Your task to perform on an android device: refresh tabs in the chrome app Image 0: 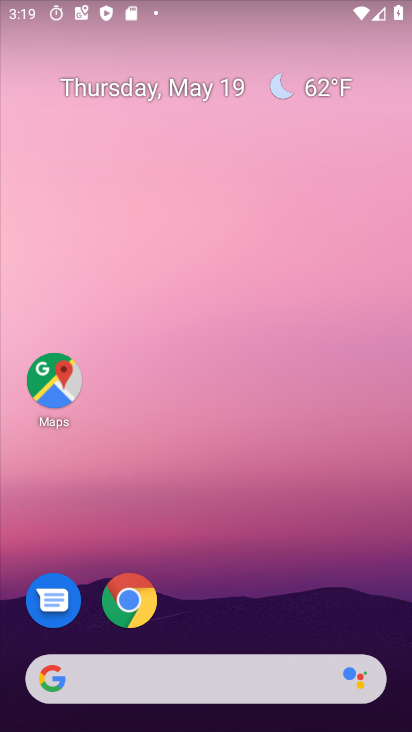
Step 0: press home button
Your task to perform on an android device: refresh tabs in the chrome app Image 1: 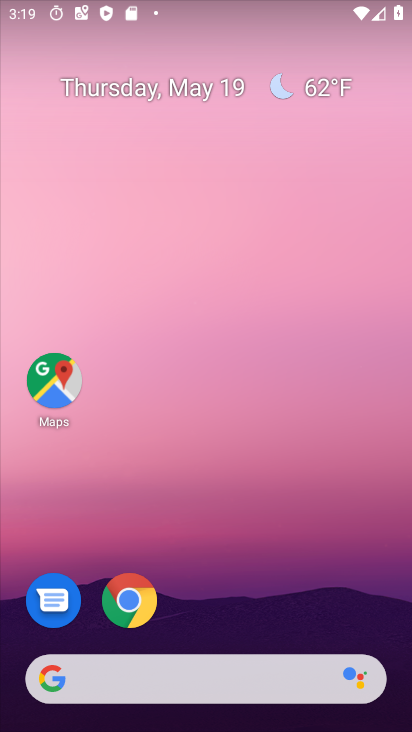
Step 1: click (121, 602)
Your task to perform on an android device: refresh tabs in the chrome app Image 2: 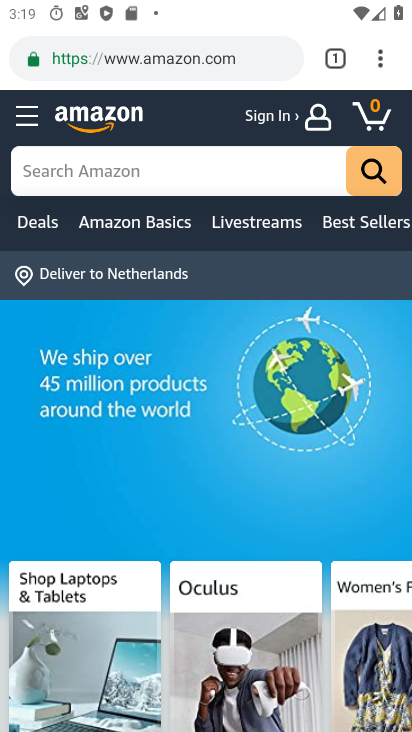
Step 2: click (374, 52)
Your task to perform on an android device: refresh tabs in the chrome app Image 3: 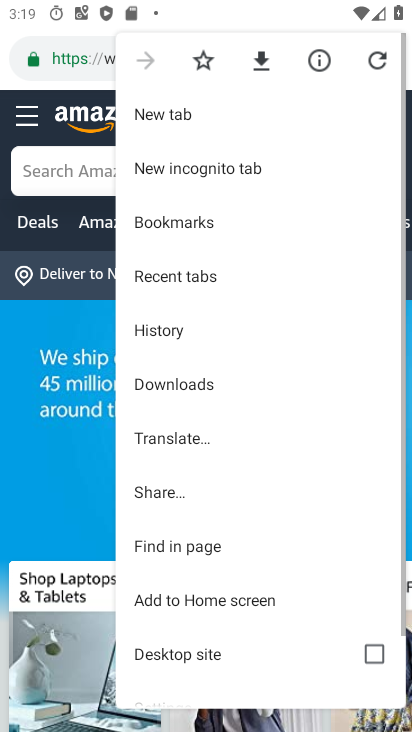
Step 3: click (368, 70)
Your task to perform on an android device: refresh tabs in the chrome app Image 4: 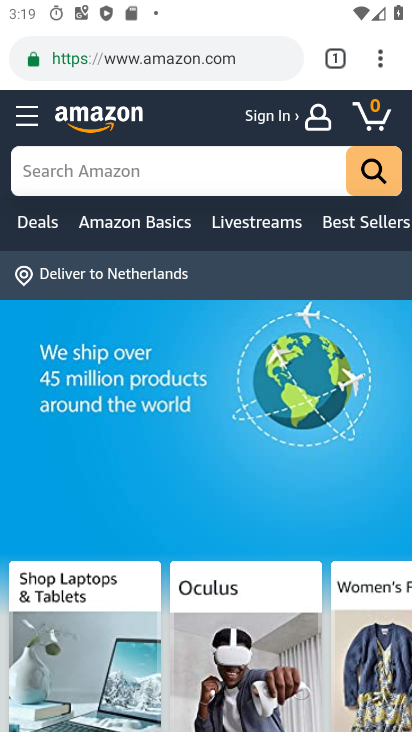
Step 4: task complete